Your task to perform on an android device: turn vacation reply on in the gmail app Image 0: 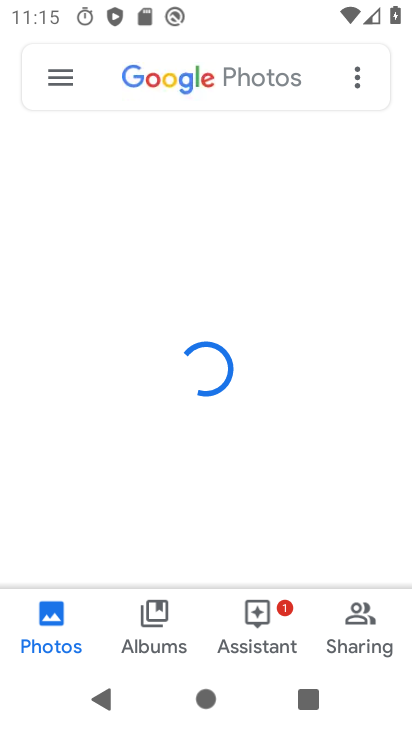
Step 0: press home button
Your task to perform on an android device: turn vacation reply on in the gmail app Image 1: 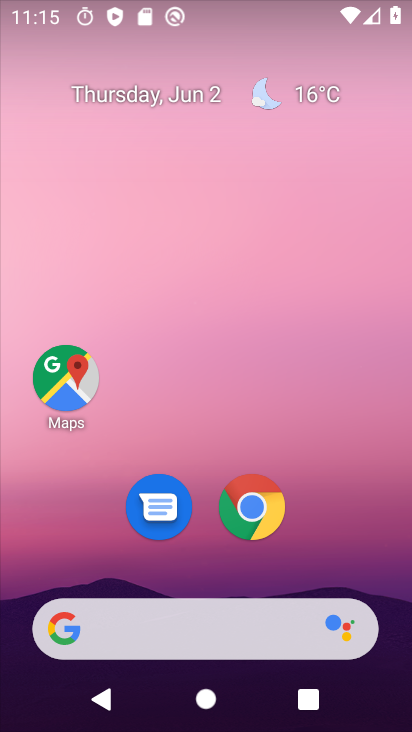
Step 1: drag from (388, 638) to (272, 23)
Your task to perform on an android device: turn vacation reply on in the gmail app Image 2: 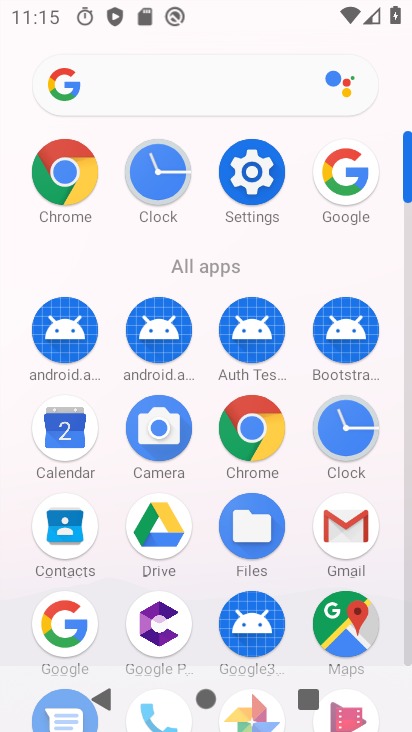
Step 2: click (349, 521)
Your task to perform on an android device: turn vacation reply on in the gmail app Image 3: 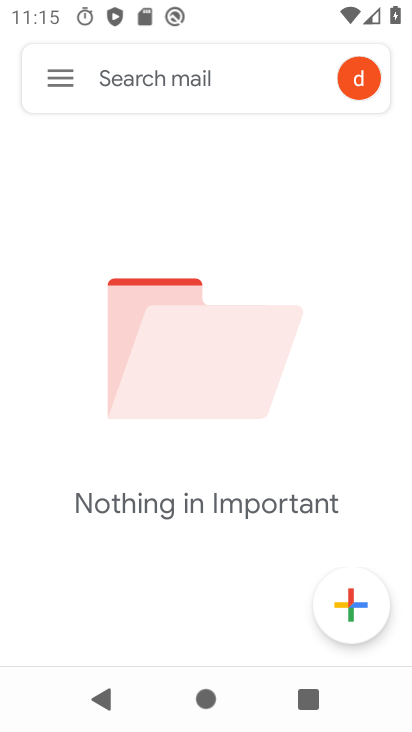
Step 3: click (64, 85)
Your task to perform on an android device: turn vacation reply on in the gmail app Image 4: 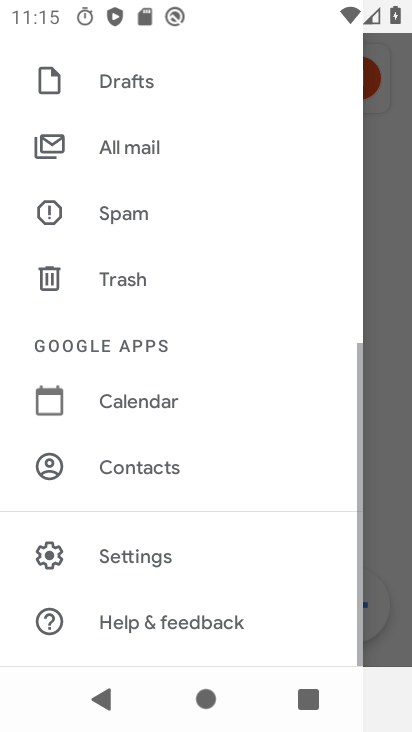
Step 4: click (172, 552)
Your task to perform on an android device: turn vacation reply on in the gmail app Image 5: 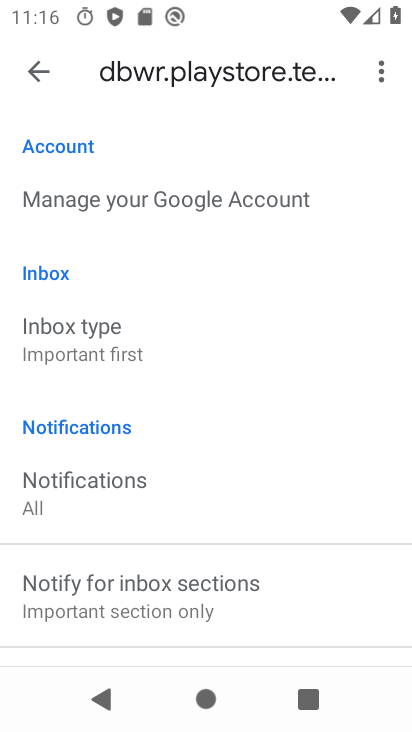
Step 5: drag from (200, 630) to (253, 76)
Your task to perform on an android device: turn vacation reply on in the gmail app Image 6: 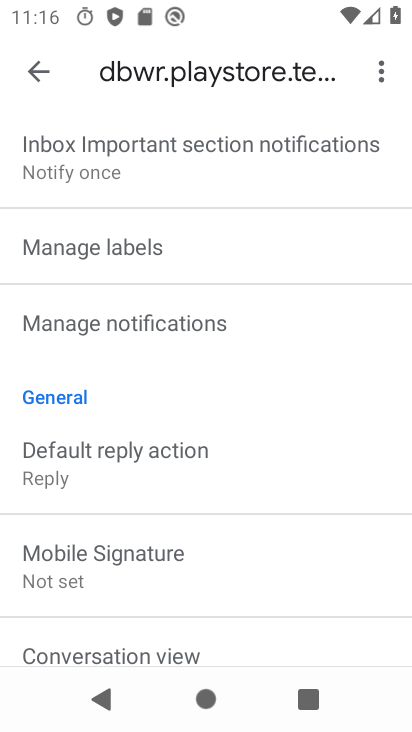
Step 6: drag from (213, 626) to (248, 133)
Your task to perform on an android device: turn vacation reply on in the gmail app Image 7: 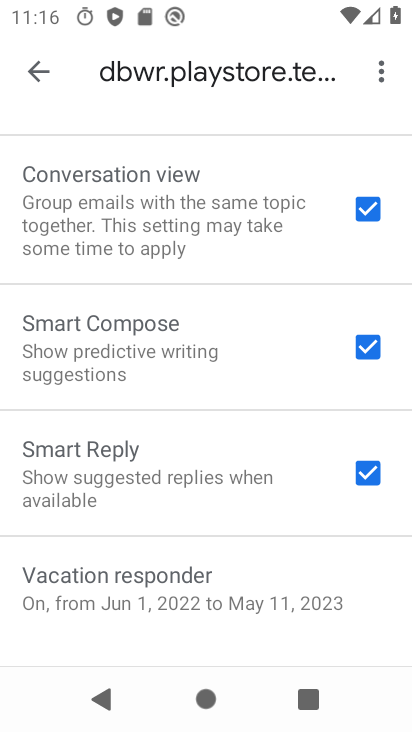
Step 7: click (209, 593)
Your task to perform on an android device: turn vacation reply on in the gmail app Image 8: 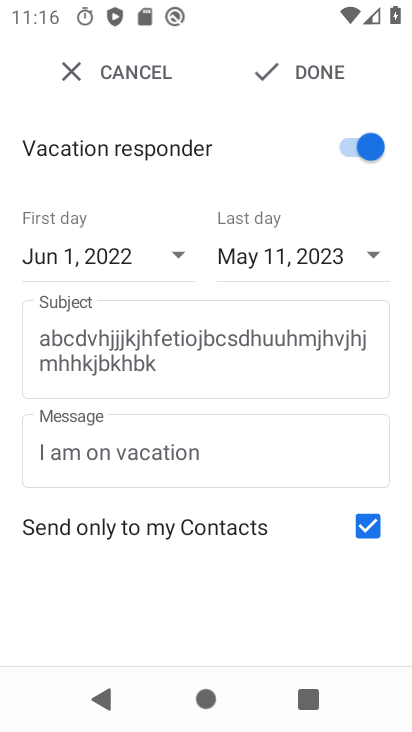
Step 8: task complete